Your task to perform on an android device: Set the phone to "Do not disturb". Image 0: 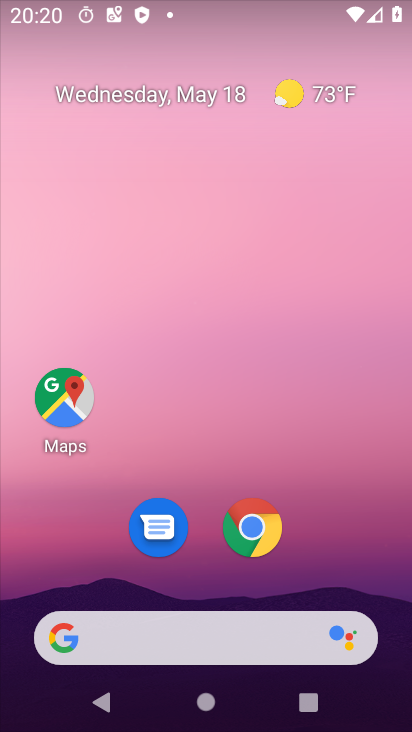
Step 0: drag from (398, 694) to (343, 143)
Your task to perform on an android device: Set the phone to "Do not disturb". Image 1: 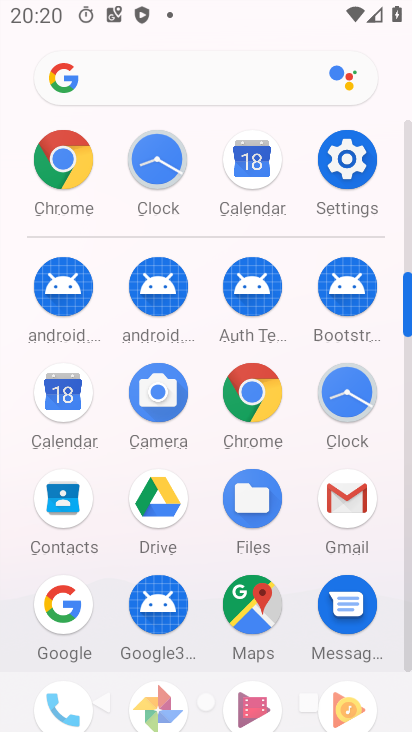
Step 1: click (356, 152)
Your task to perform on an android device: Set the phone to "Do not disturb". Image 2: 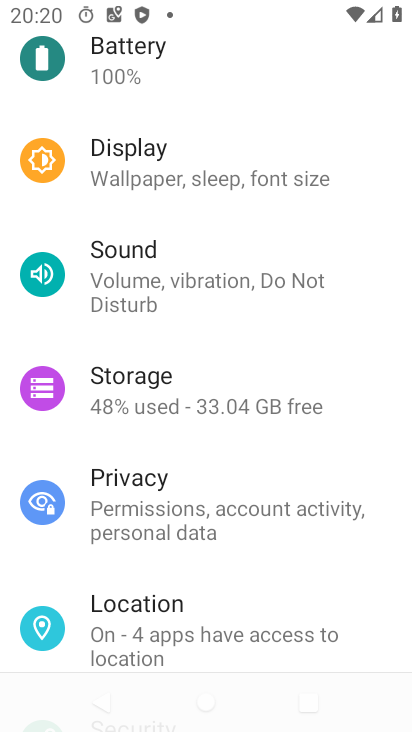
Step 2: click (149, 284)
Your task to perform on an android device: Set the phone to "Do not disturb". Image 3: 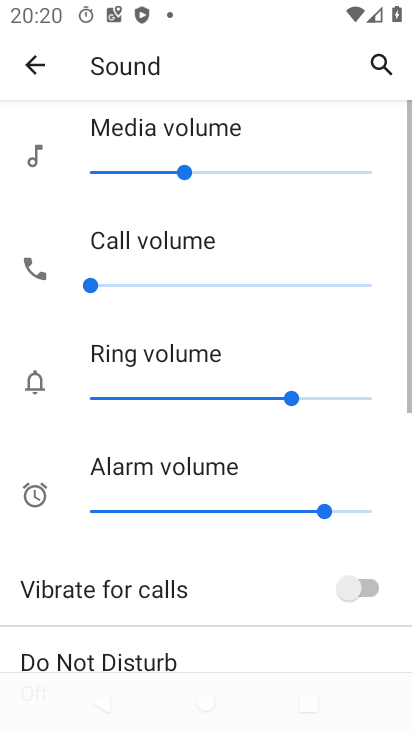
Step 3: drag from (232, 633) to (209, 226)
Your task to perform on an android device: Set the phone to "Do not disturb". Image 4: 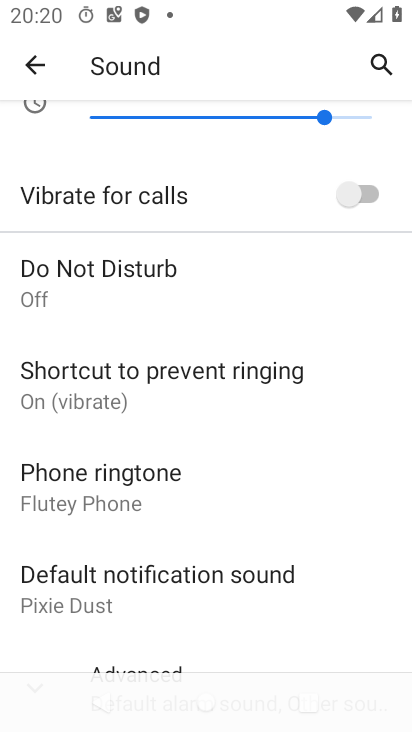
Step 4: click (88, 271)
Your task to perform on an android device: Set the phone to "Do not disturb". Image 5: 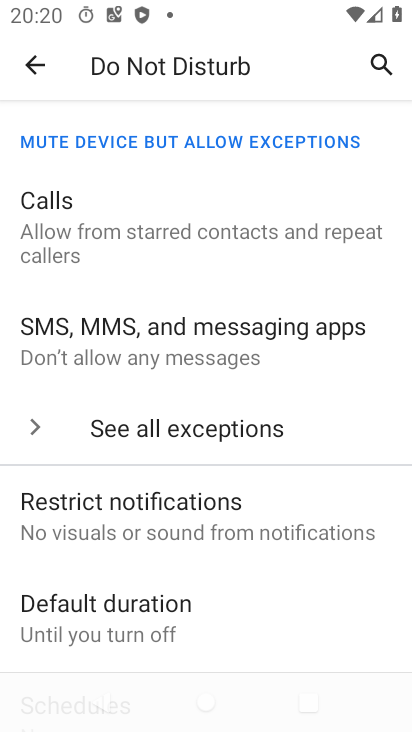
Step 5: drag from (318, 578) to (322, 239)
Your task to perform on an android device: Set the phone to "Do not disturb". Image 6: 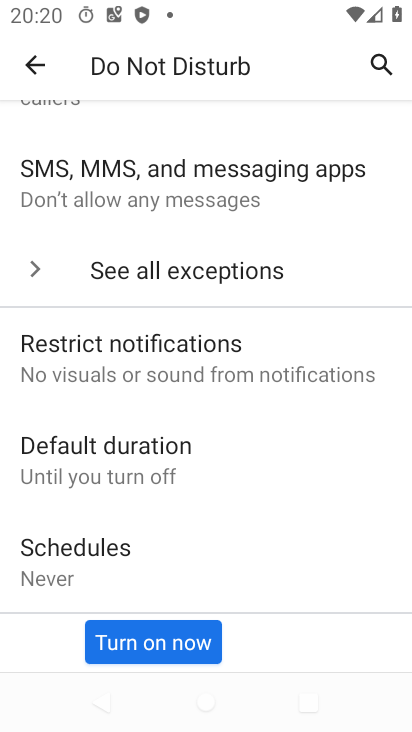
Step 6: drag from (231, 199) to (232, 554)
Your task to perform on an android device: Set the phone to "Do not disturb". Image 7: 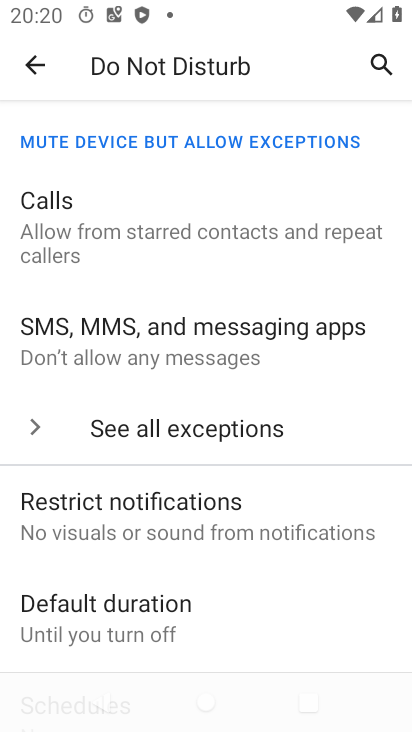
Step 7: drag from (234, 226) to (219, 509)
Your task to perform on an android device: Set the phone to "Do not disturb". Image 8: 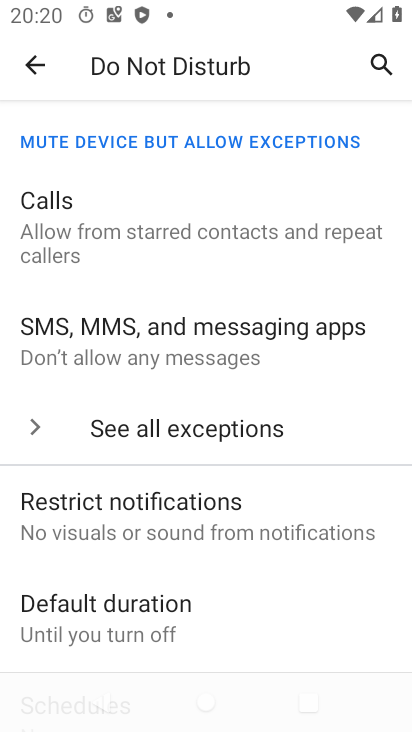
Step 8: drag from (272, 187) to (280, 559)
Your task to perform on an android device: Set the phone to "Do not disturb". Image 9: 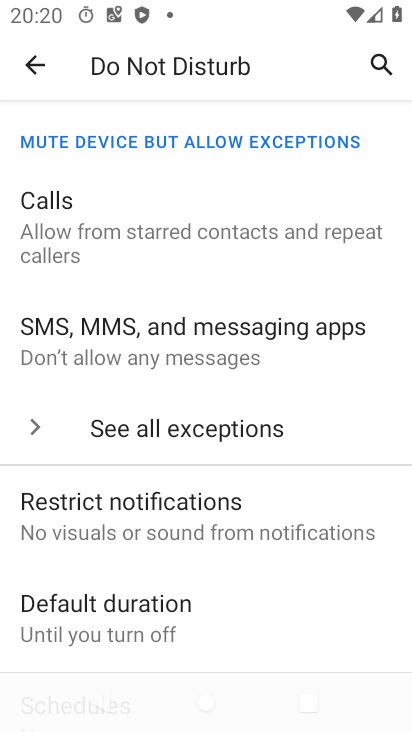
Step 9: drag from (249, 623) to (180, 227)
Your task to perform on an android device: Set the phone to "Do not disturb". Image 10: 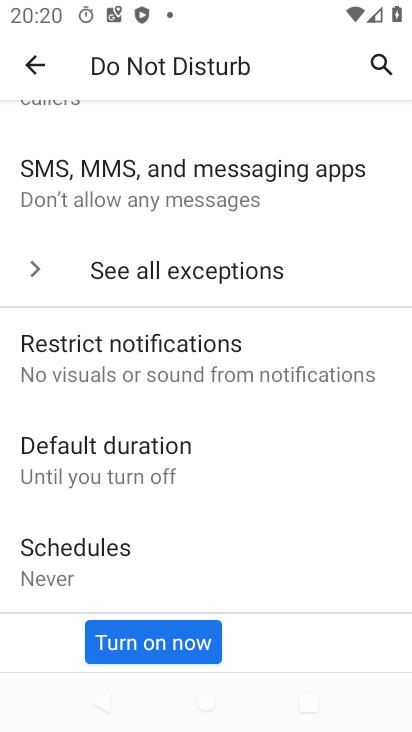
Step 10: click (157, 655)
Your task to perform on an android device: Set the phone to "Do not disturb". Image 11: 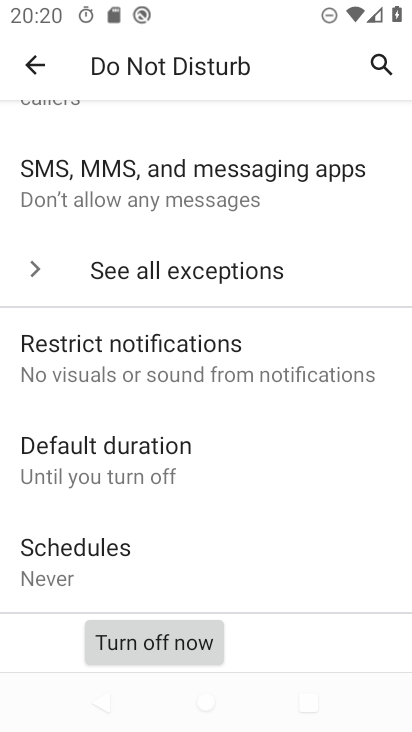
Step 11: task complete